Your task to perform on an android device: see creations saved in the google photos Image 0: 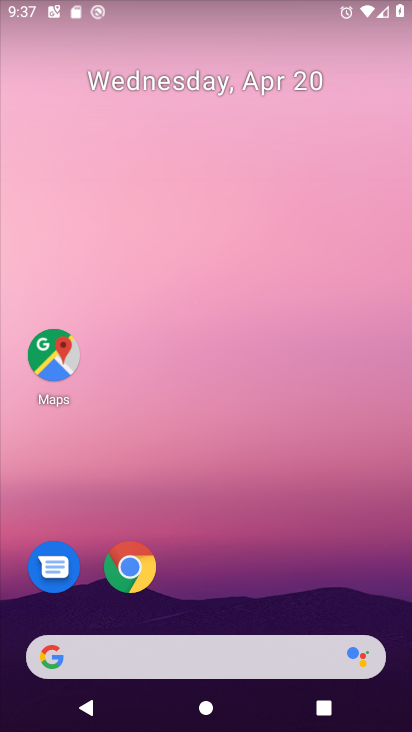
Step 0: drag from (341, 584) to (340, 175)
Your task to perform on an android device: see creations saved in the google photos Image 1: 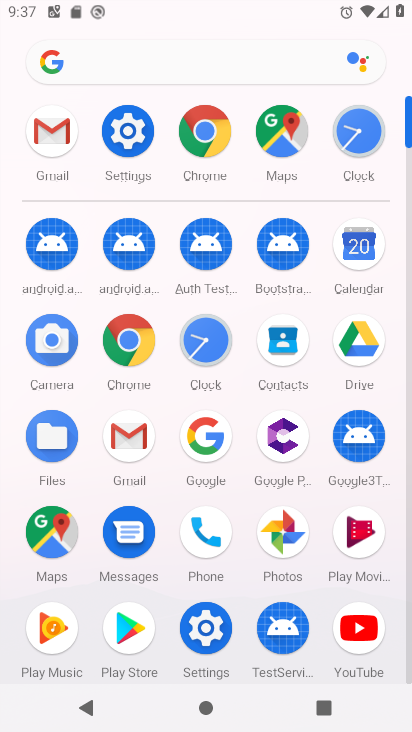
Step 1: click (293, 533)
Your task to perform on an android device: see creations saved in the google photos Image 2: 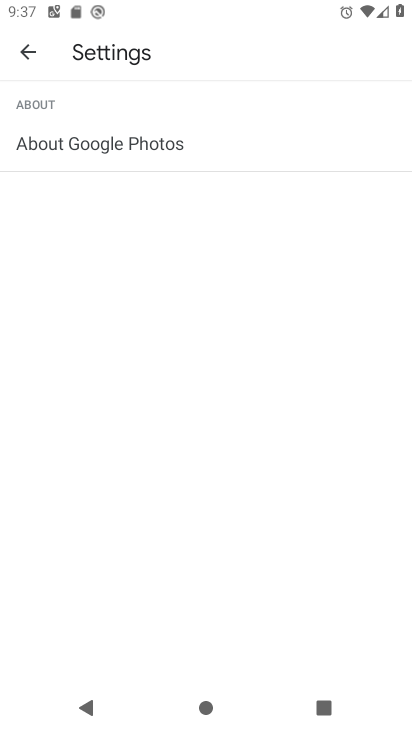
Step 2: click (29, 45)
Your task to perform on an android device: see creations saved in the google photos Image 3: 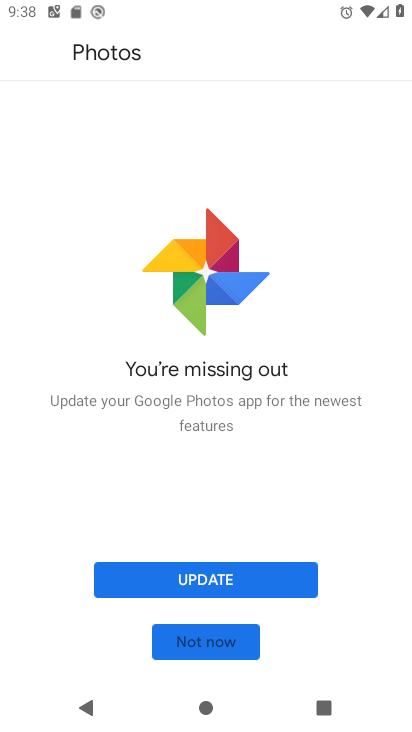
Step 3: click (258, 582)
Your task to perform on an android device: see creations saved in the google photos Image 4: 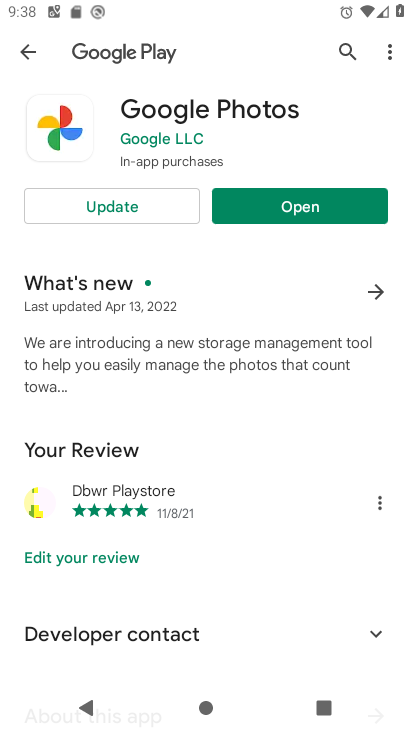
Step 4: click (130, 206)
Your task to perform on an android device: see creations saved in the google photos Image 5: 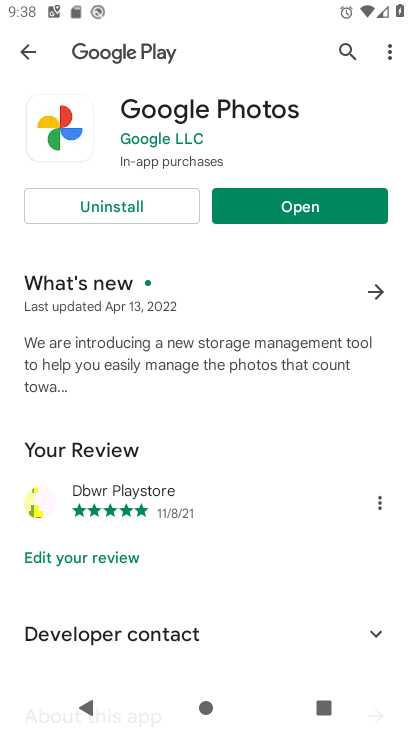
Step 5: click (329, 201)
Your task to perform on an android device: see creations saved in the google photos Image 6: 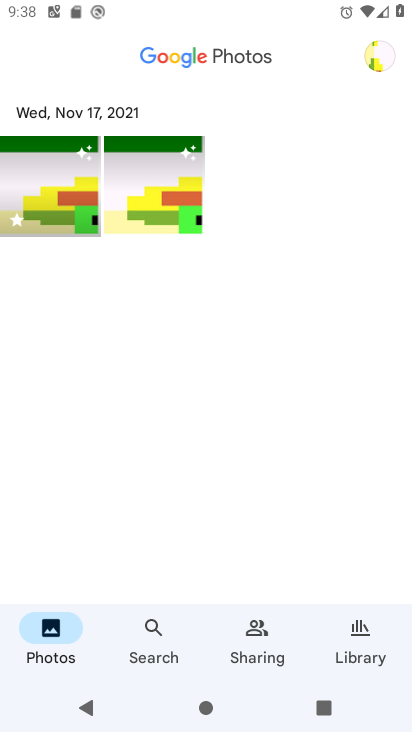
Step 6: click (147, 630)
Your task to perform on an android device: see creations saved in the google photos Image 7: 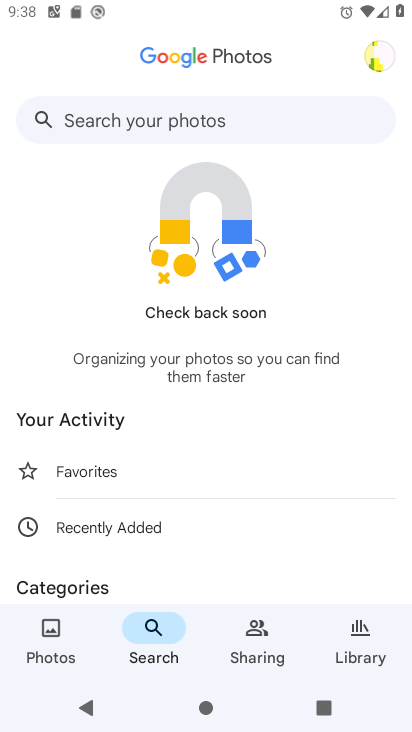
Step 7: drag from (286, 515) to (319, 369)
Your task to perform on an android device: see creations saved in the google photos Image 8: 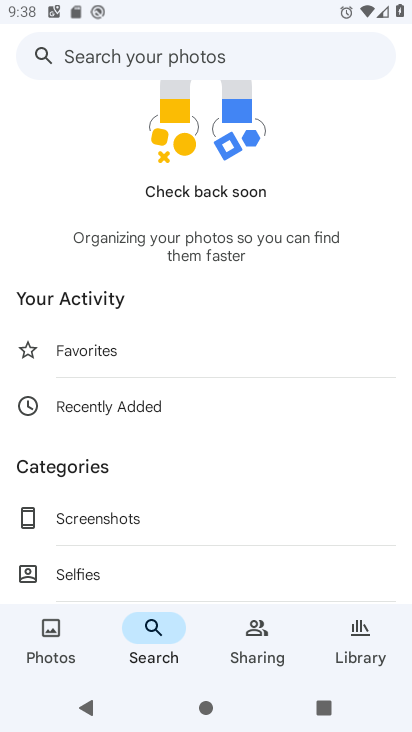
Step 8: drag from (308, 477) to (326, 348)
Your task to perform on an android device: see creations saved in the google photos Image 9: 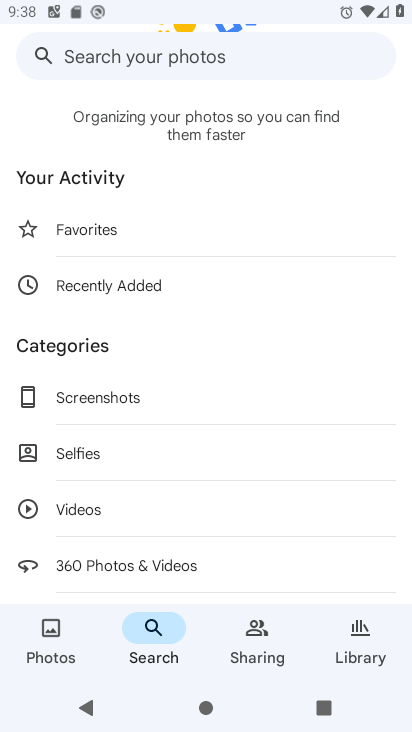
Step 9: drag from (270, 536) to (302, 325)
Your task to perform on an android device: see creations saved in the google photos Image 10: 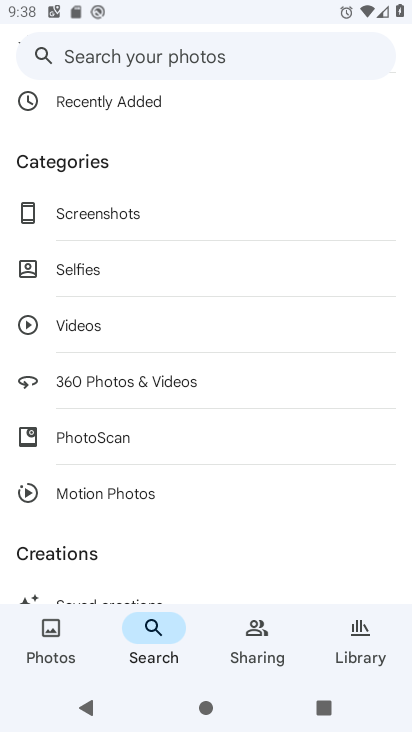
Step 10: drag from (278, 505) to (294, 316)
Your task to perform on an android device: see creations saved in the google photos Image 11: 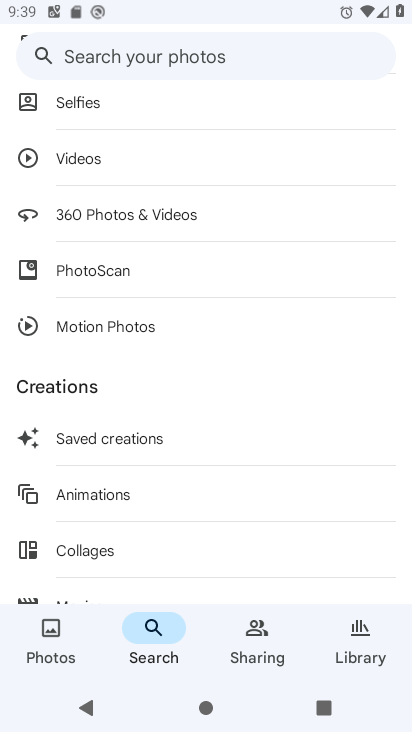
Step 11: click (121, 437)
Your task to perform on an android device: see creations saved in the google photos Image 12: 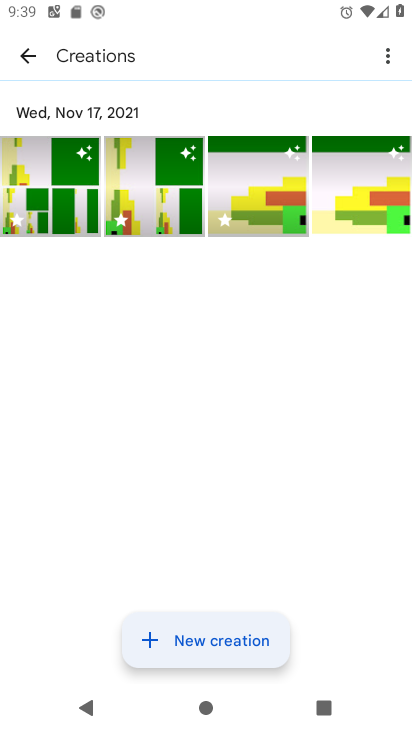
Step 12: task complete